Your task to perform on an android device: toggle data saver in the chrome app Image 0: 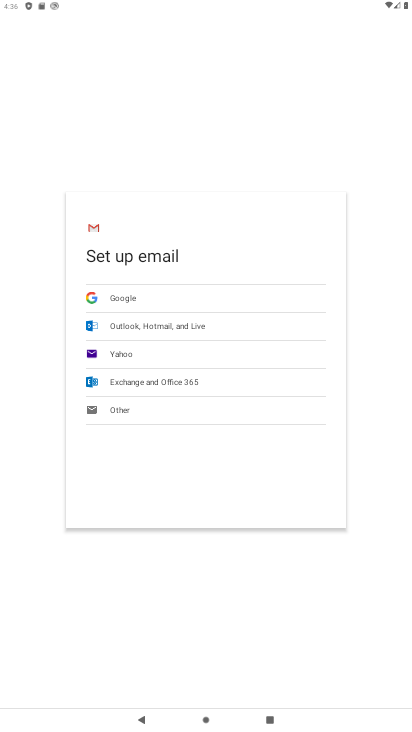
Step 0: press home button
Your task to perform on an android device: toggle data saver in the chrome app Image 1: 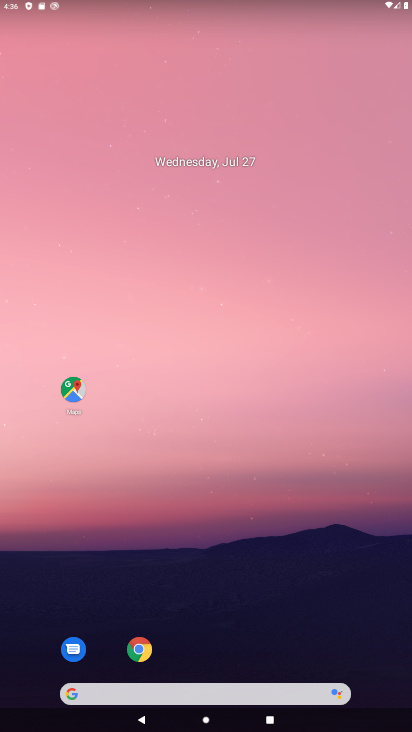
Step 1: click (141, 651)
Your task to perform on an android device: toggle data saver in the chrome app Image 2: 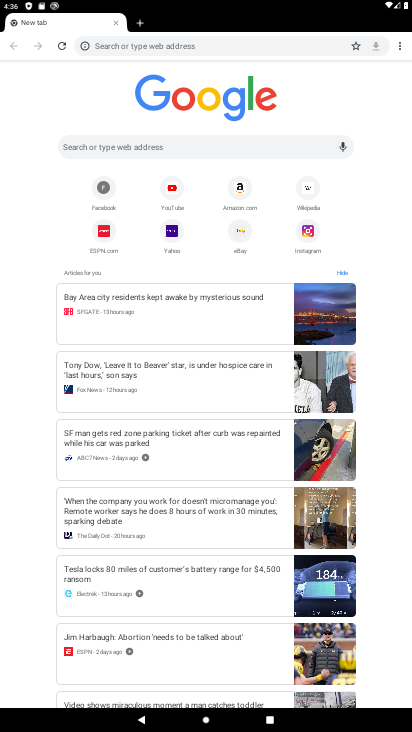
Step 2: click (400, 46)
Your task to perform on an android device: toggle data saver in the chrome app Image 3: 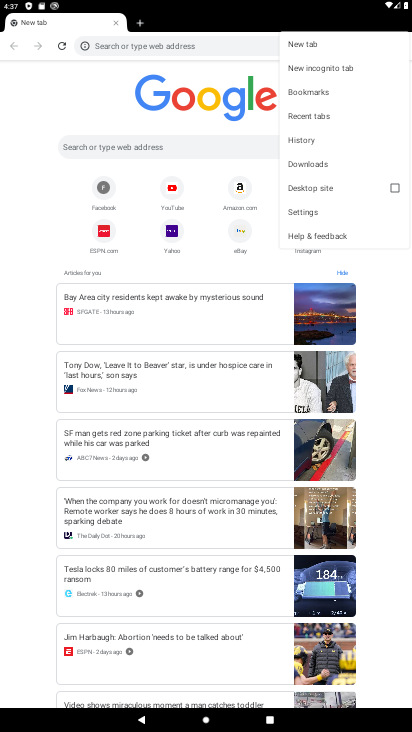
Step 3: click (306, 214)
Your task to perform on an android device: toggle data saver in the chrome app Image 4: 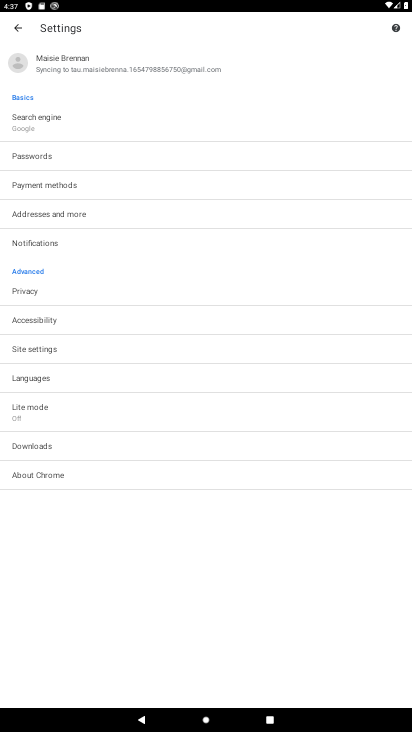
Step 4: click (33, 408)
Your task to perform on an android device: toggle data saver in the chrome app Image 5: 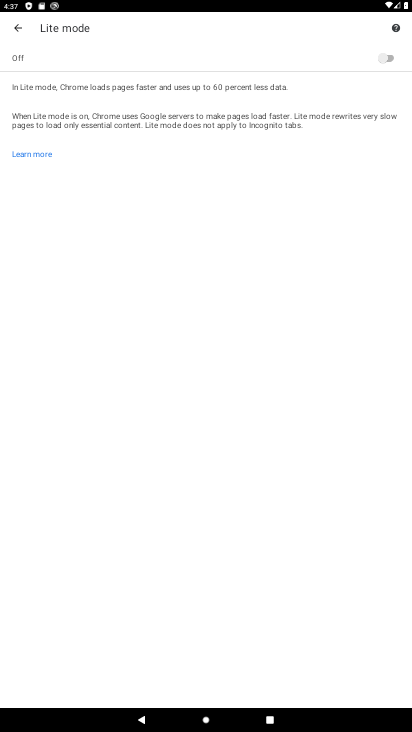
Step 5: click (385, 57)
Your task to perform on an android device: toggle data saver in the chrome app Image 6: 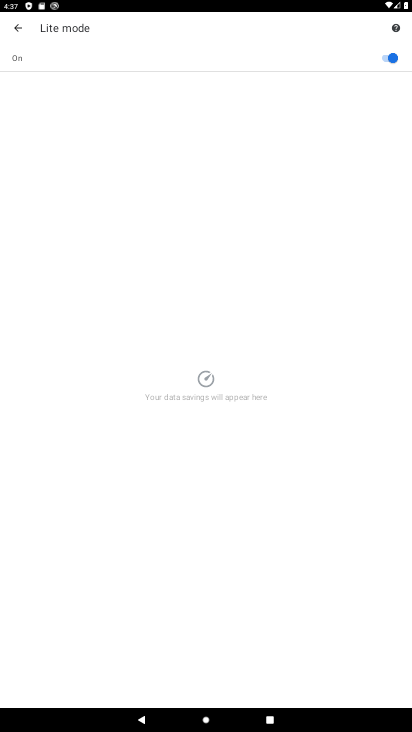
Step 6: task complete